Your task to perform on an android device: Open the calendar and show me this week's events Image 0: 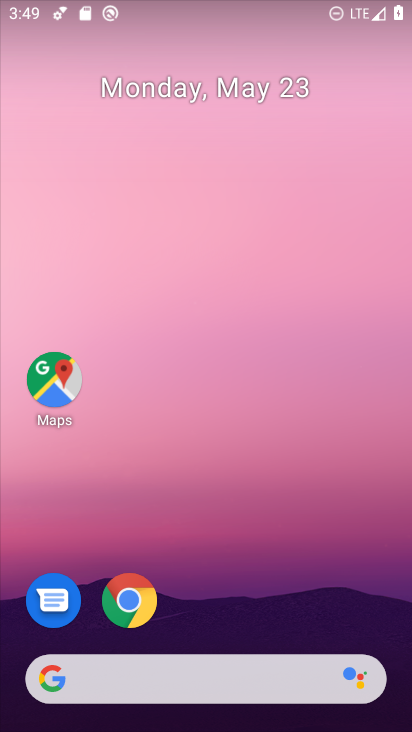
Step 0: drag from (251, 636) to (296, 3)
Your task to perform on an android device: Open the calendar and show me this week's events Image 1: 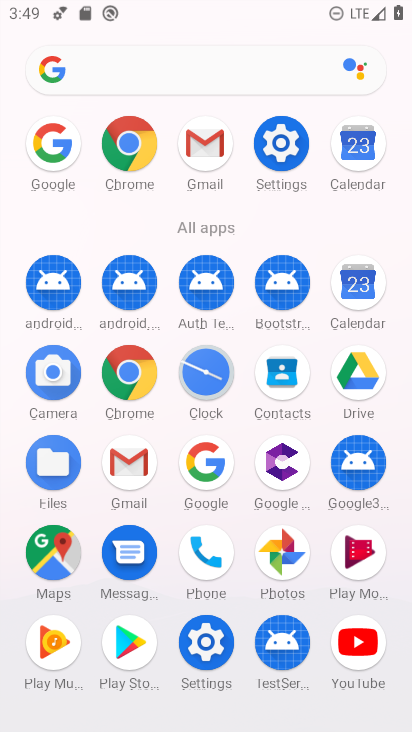
Step 1: click (360, 149)
Your task to perform on an android device: Open the calendar and show me this week's events Image 2: 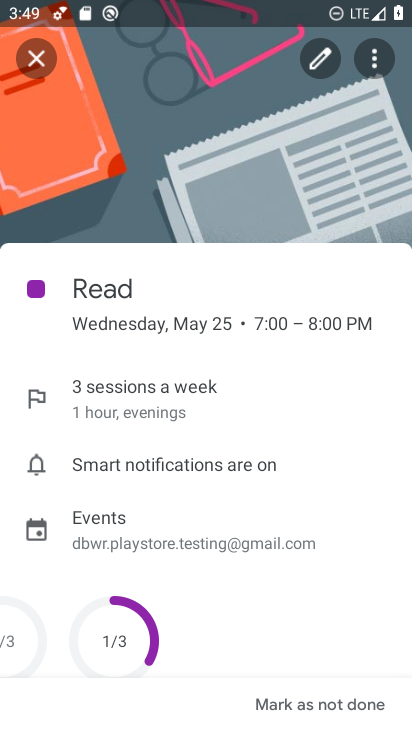
Step 2: click (35, 73)
Your task to perform on an android device: Open the calendar and show me this week's events Image 3: 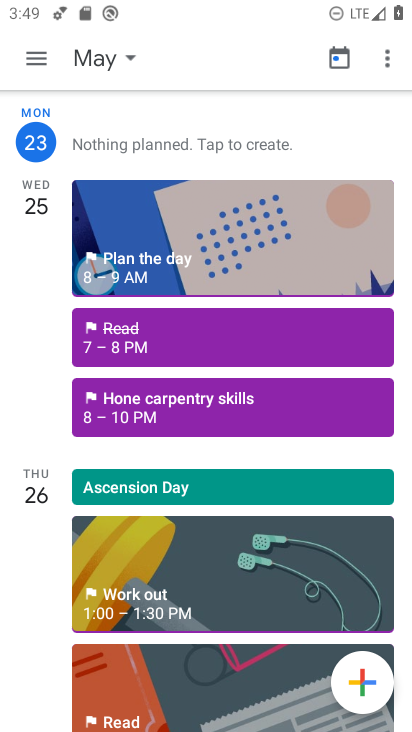
Step 3: click (36, 60)
Your task to perform on an android device: Open the calendar and show me this week's events Image 4: 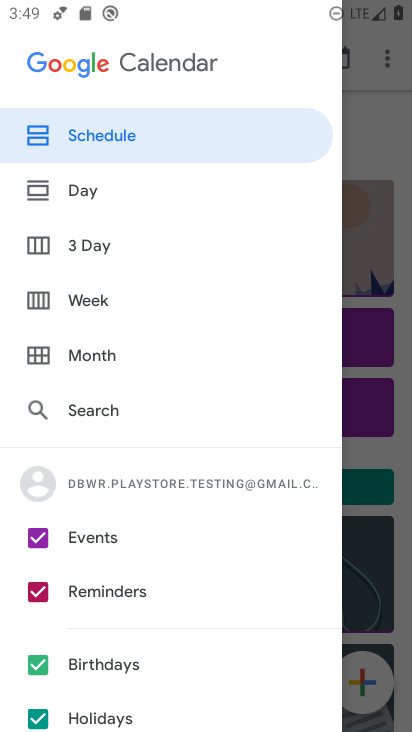
Step 4: click (89, 303)
Your task to perform on an android device: Open the calendar and show me this week's events Image 5: 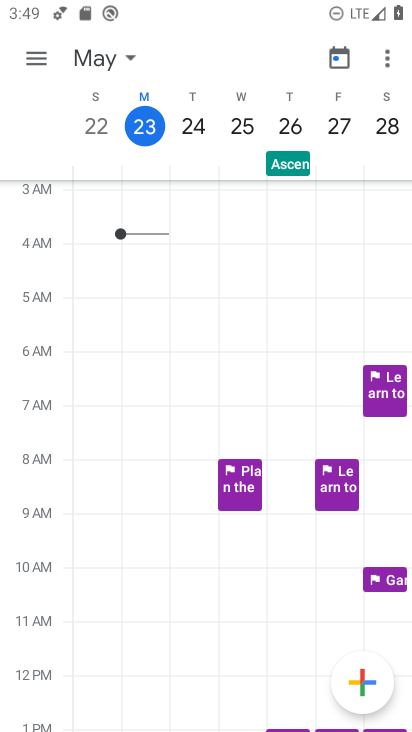
Step 5: click (33, 63)
Your task to perform on an android device: Open the calendar and show me this week's events Image 6: 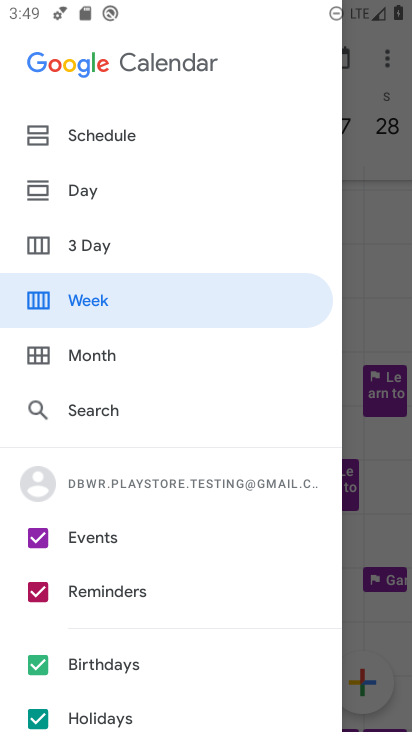
Step 6: click (33, 598)
Your task to perform on an android device: Open the calendar and show me this week's events Image 7: 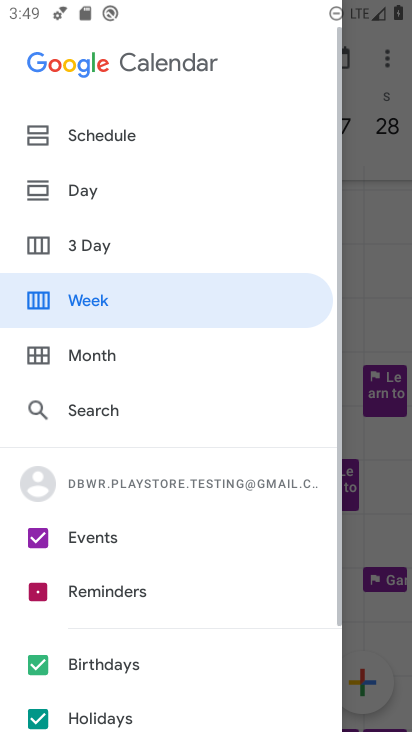
Step 7: click (31, 660)
Your task to perform on an android device: Open the calendar and show me this week's events Image 8: 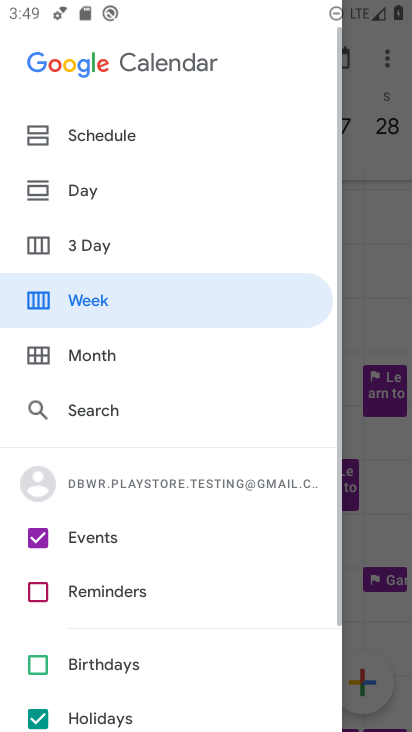
Step 8: click (34, 716)
Your task to perform on an android device: Open the calendar and show me this week's events Image 9: 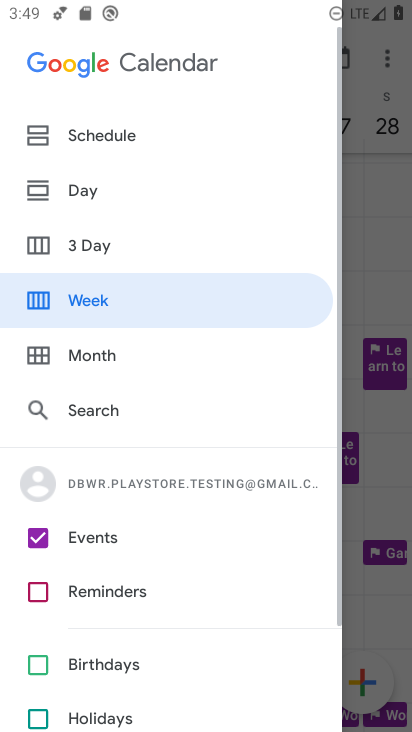
Step 9: click (34, 301)
Your task to perform on an android device: Open the calendar and show me this week's events Image 10: 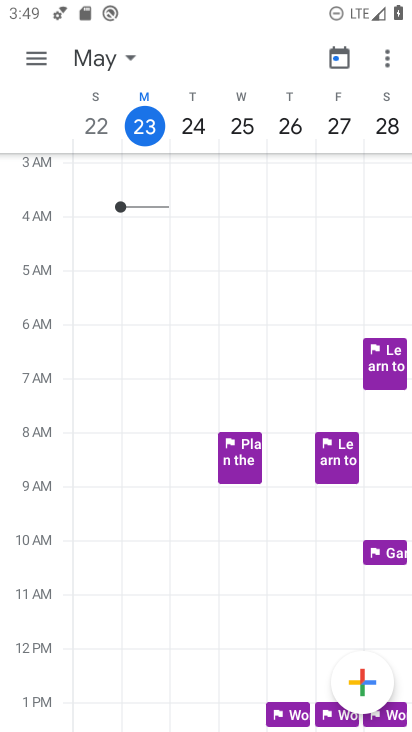
Step 10: task complete